Your task to perform on an android device: toggle data saver in the chrome app Image 0: 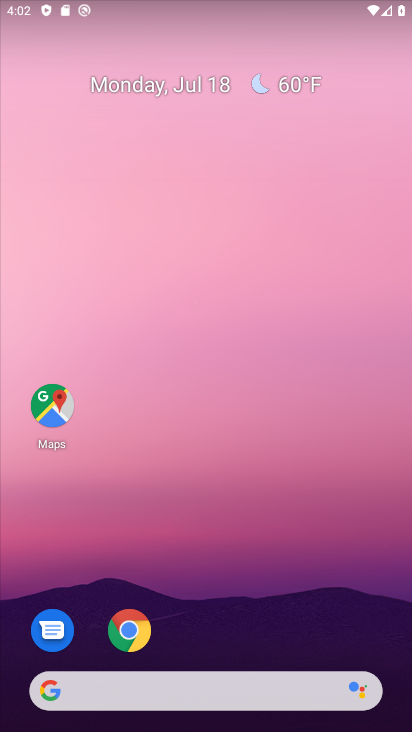
Step 0: click (263, 272)
Your task to perform on an android device: toggle data saver in the chrome app Image 1: 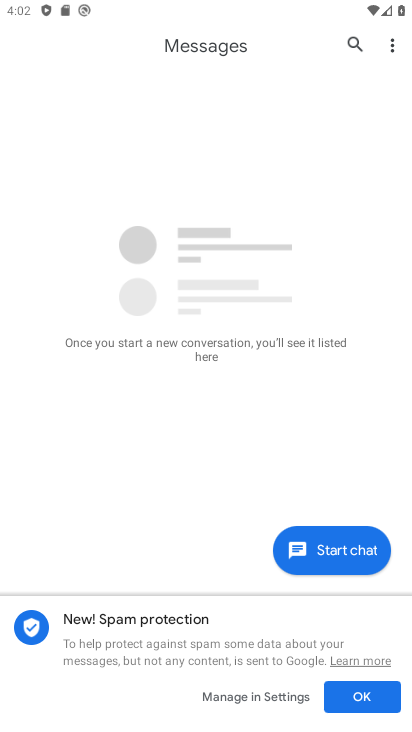
Step 1: press back button
Your task to perform on an android device: toggle data saver in the chrome app Image 2: 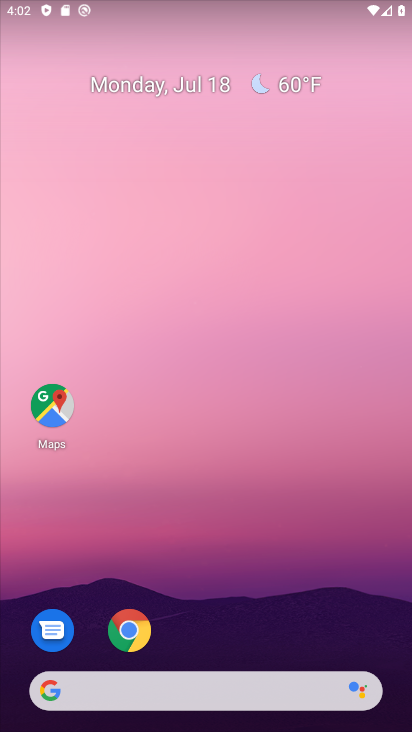
Step 2: drag from (217, 419) to (188, 205)
Your task to perform on an android device: toggle data saver in the chrome app Image 3: 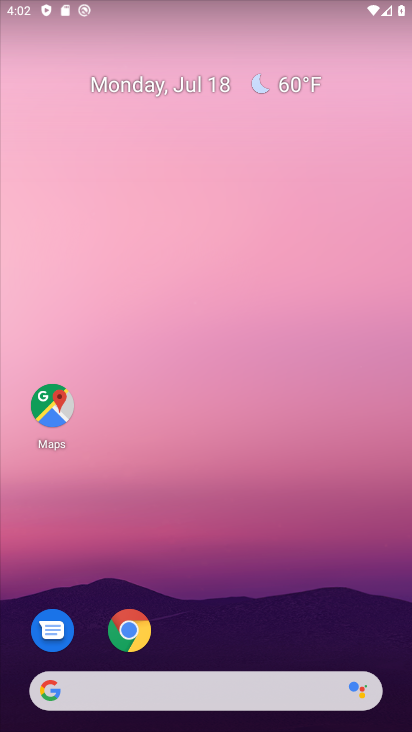
Step 3: drag from (208, 644) to (229, 272)
Your task to perform on an android device: toggle data saver in the chrome app Image 4: 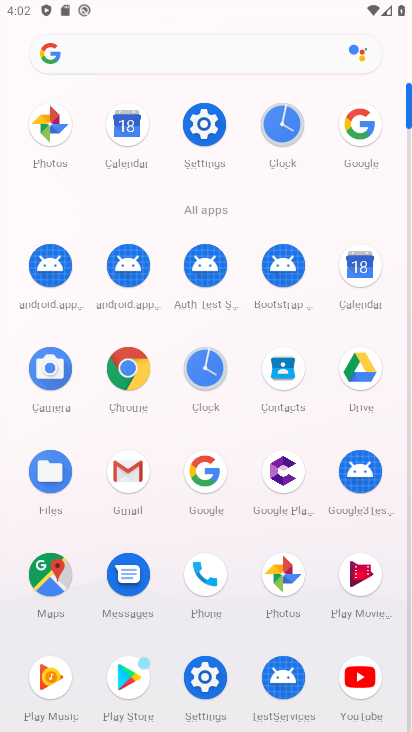
Step 4: click (124, 357)
Your task to perform on an android device: toggle data saver in the chrome app Image 5: 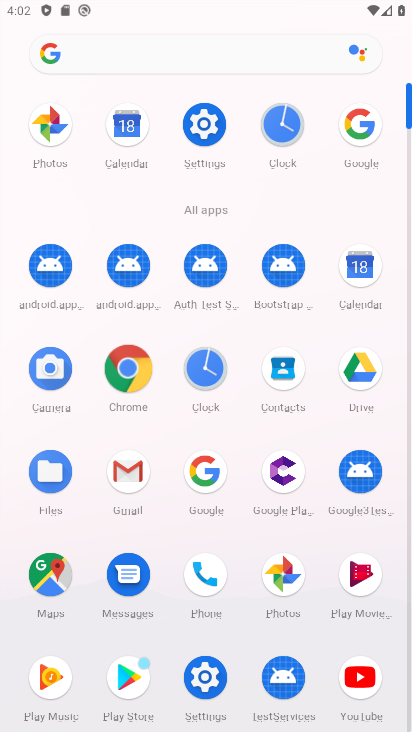
Step 5: click (133, 365)
Your task to perform on an android device: toggle data saver in the chrome app Image 6: 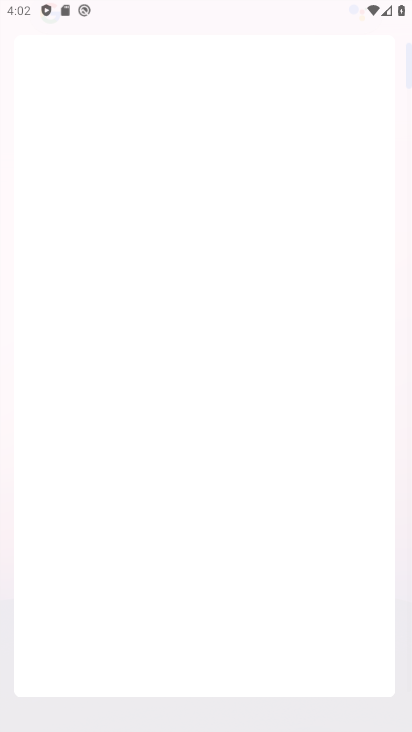
Step 6: click (142, 364)
Your task to perform on an android device: toggle data saver in the chrome app Image 7: 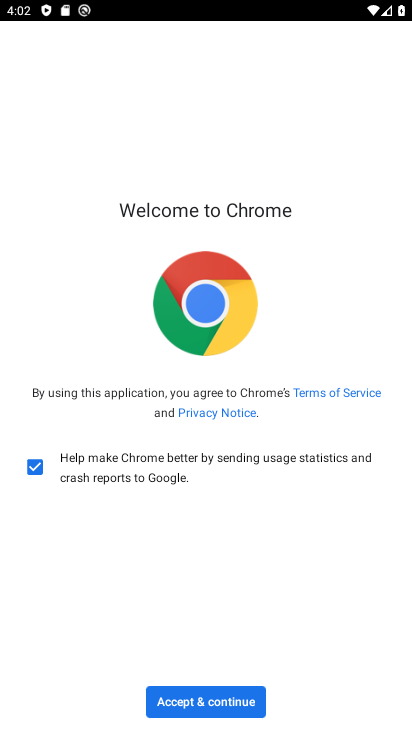
Step 7: click (197, 697)
Your task to perform on an android device: toggle data saver in the chrome app Image 8: 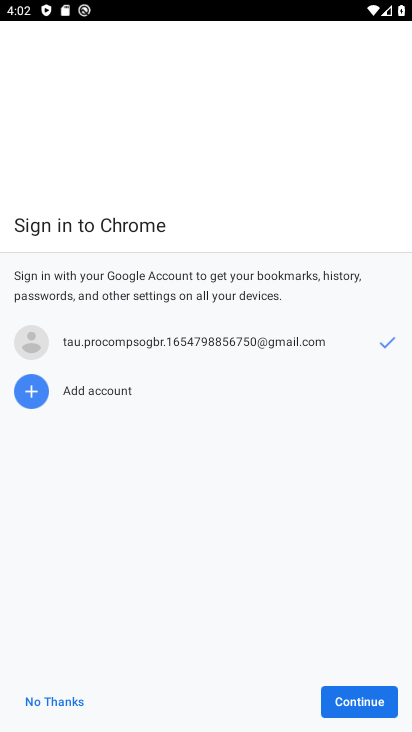
Step 8: click (353, 694)
Your task to perform on an android device: toggle data saver in the chrome app Image 9: 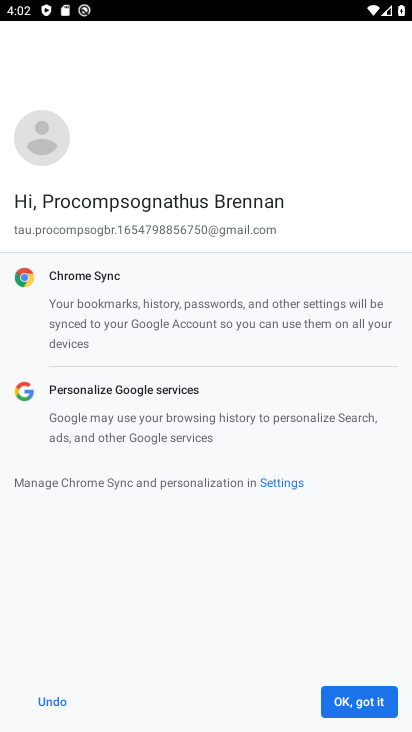
Step 9: click (360, 699)
Your task to perform on an android device: toggle data saver in the chrome app Image 10: 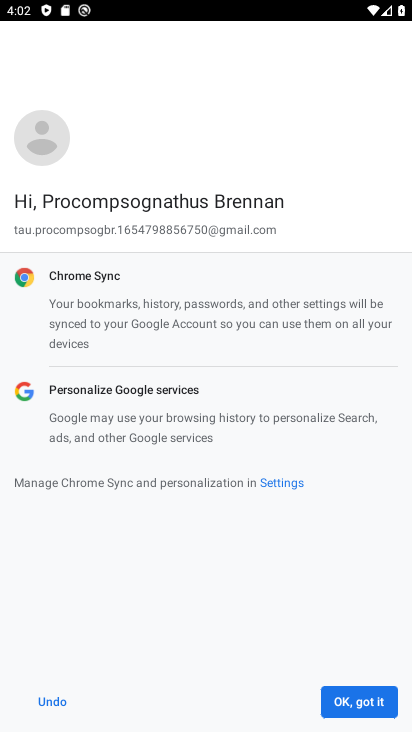
Step 10: click (363, 701)
Your task to perform on an android device: toggle data saver in the chrome app Image 11: 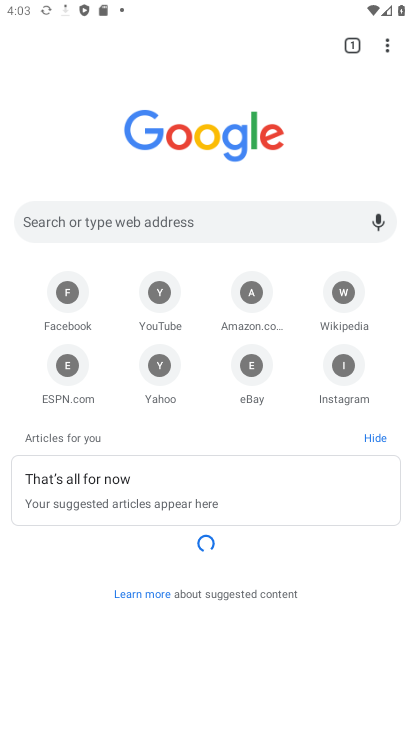
Step 11: click (378, 40)
Your task to perform on an android device: toggle data saver in the chrome app Image 12: 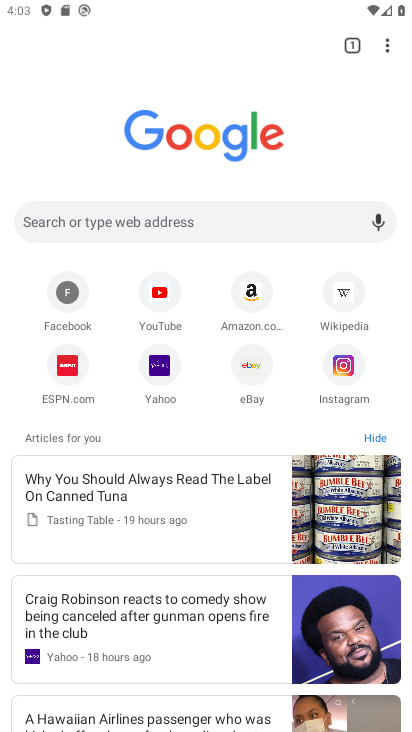
Step 12: drag from (378, 46) to (209, 386)
Your task to perform on an android device: toggle data saver in the chrome app Image 13: 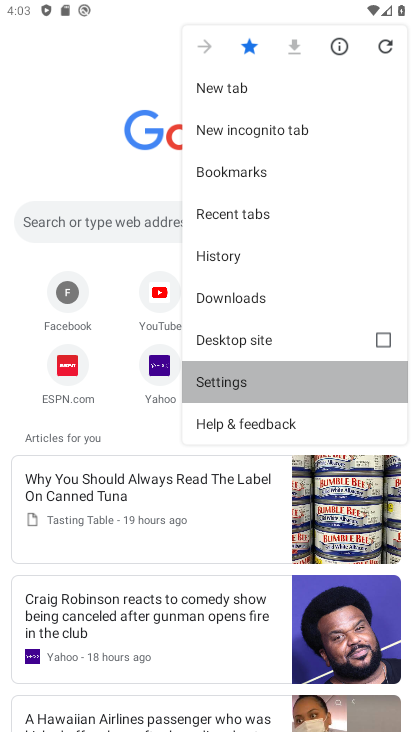
Step 13: click (208, 387)
Your task to perform on an android device: toggle data saver in the chrome app Image 14: 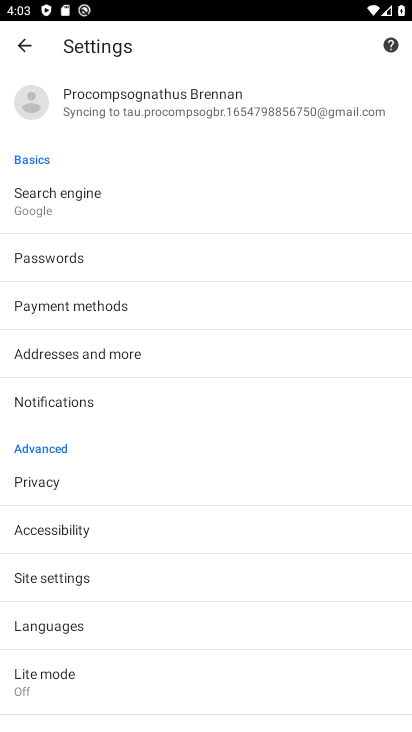
Step 14: click (49, 573)
Your task to perform on an android device: toggle data saver in the chrome app Image 15: 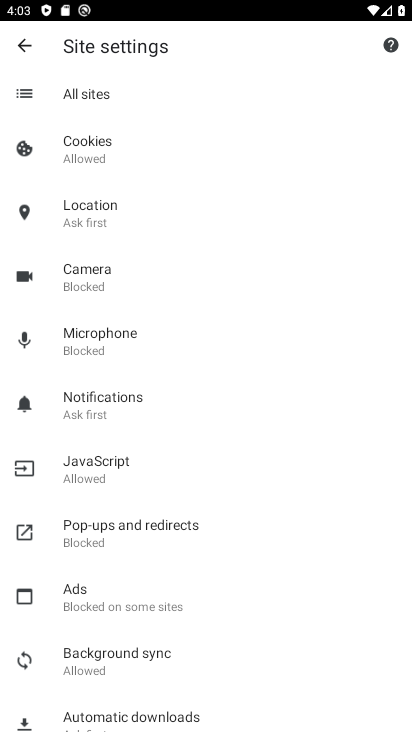
Step 15: click (24, 44)
Your task to perform on an android device: toggle data saver in the chrome app Image 16: 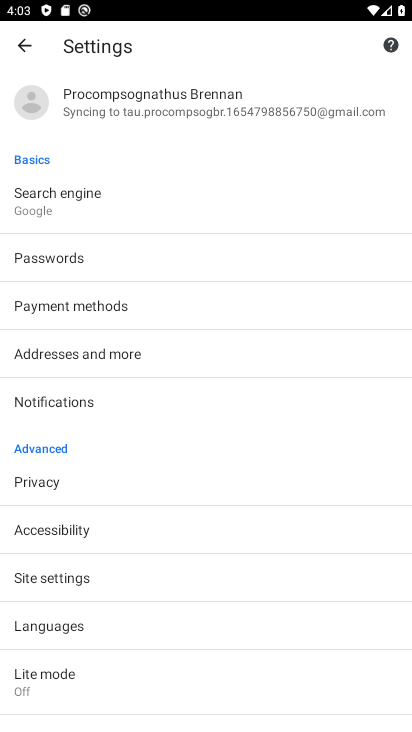
Step 16: click (35, 665)
Your task to perform on an android device: toggle data saver in the chrome app Image 17: 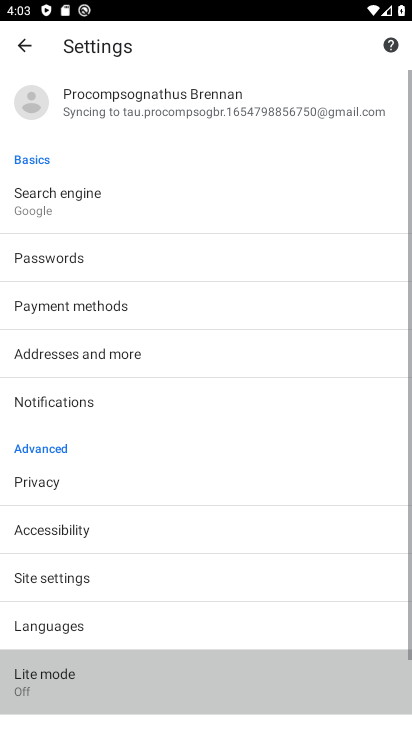
Step 17: click (37, 677)
Your task to perform on an android device: toggle data saver in the chrome app Image 18: 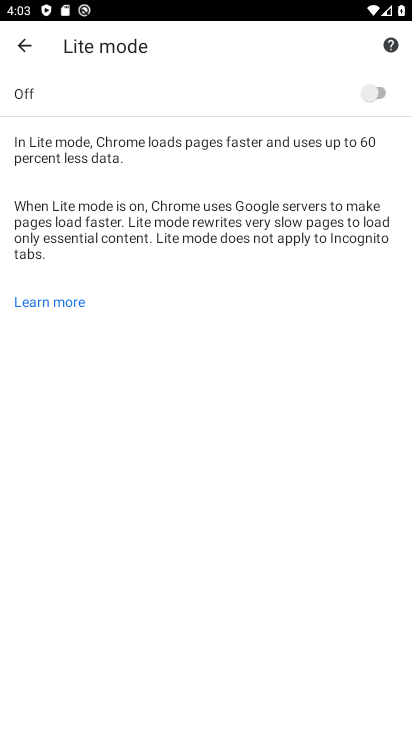
Step 18: click (368, 88)
Your task to perform on an android device: toggle data saver in the chrome app Image 19: 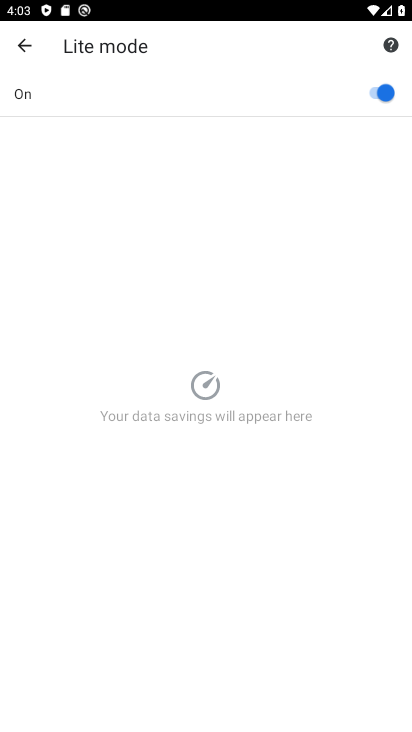
Step 19: task complete